Your task to perform on an android device: check google app version Image 0: 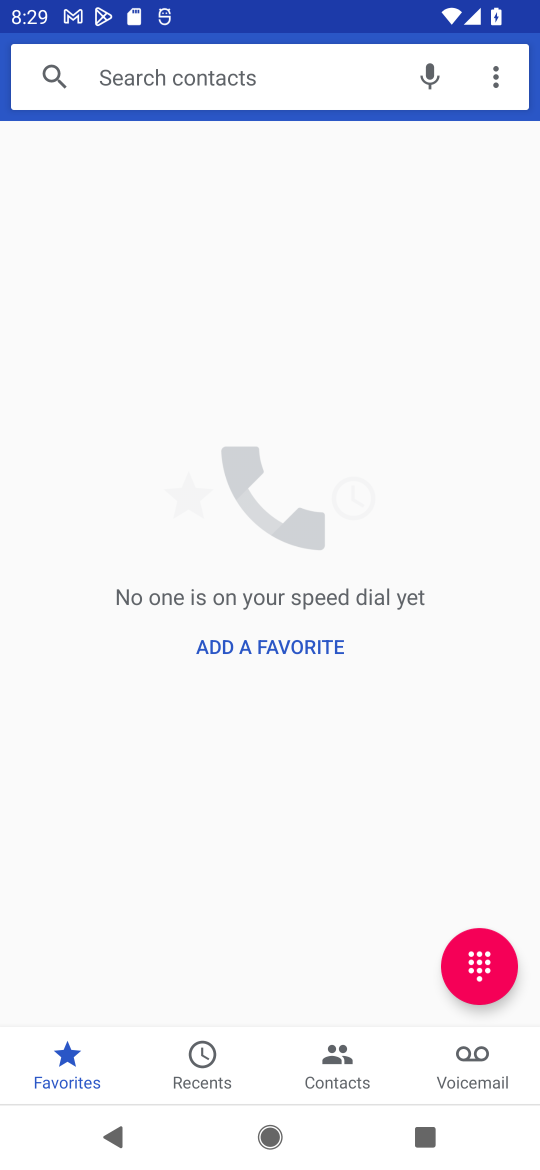
Step 0: press home button
Your task to perform on an android device: check google app version Image 1: 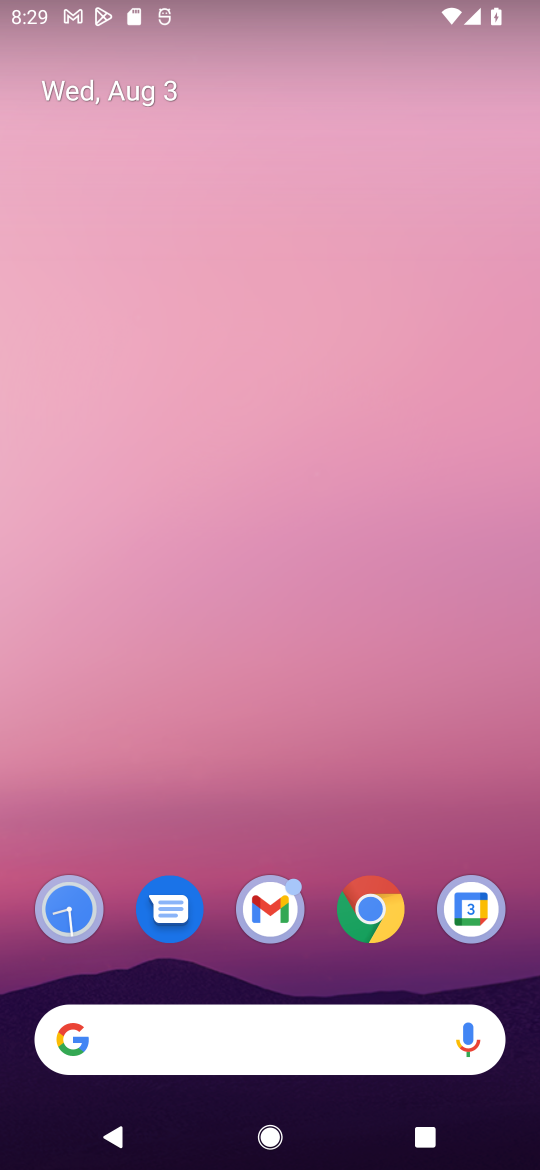
Step 1: drag from (420, 838) to (448, 391)
Your task to perform on an android device: check google app version Image 2: 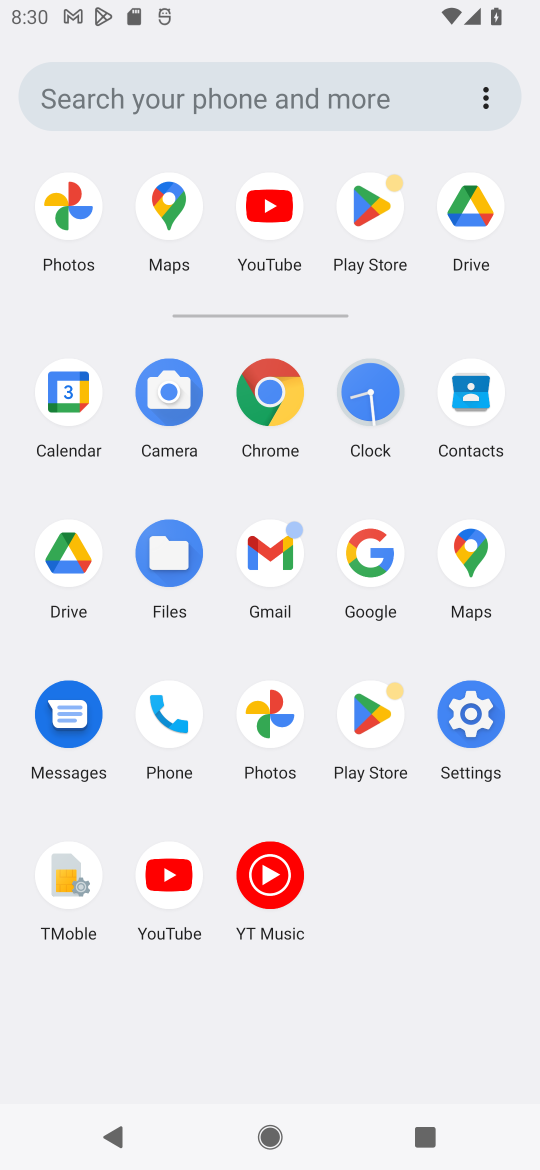
Step 2: click (383, 561)
Your task to perform on an android device: check google app version Image 3: 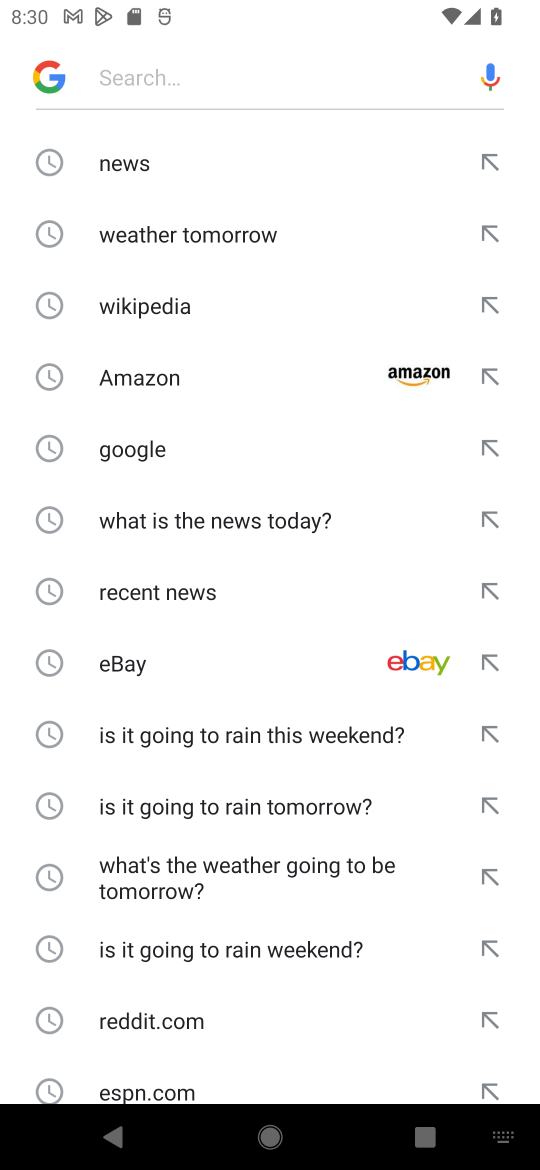
Step 3: press back button
Your task to perform on an android device: check google app version Image 4: 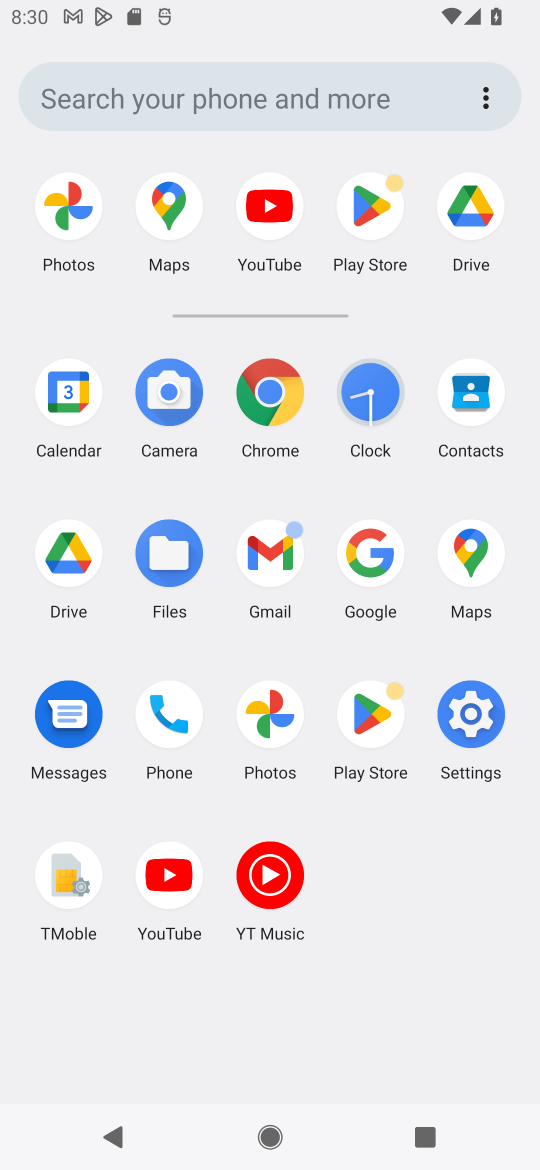
Step 4: click (381, 553)
Your task to perform on an android device: check google app version Image 5: 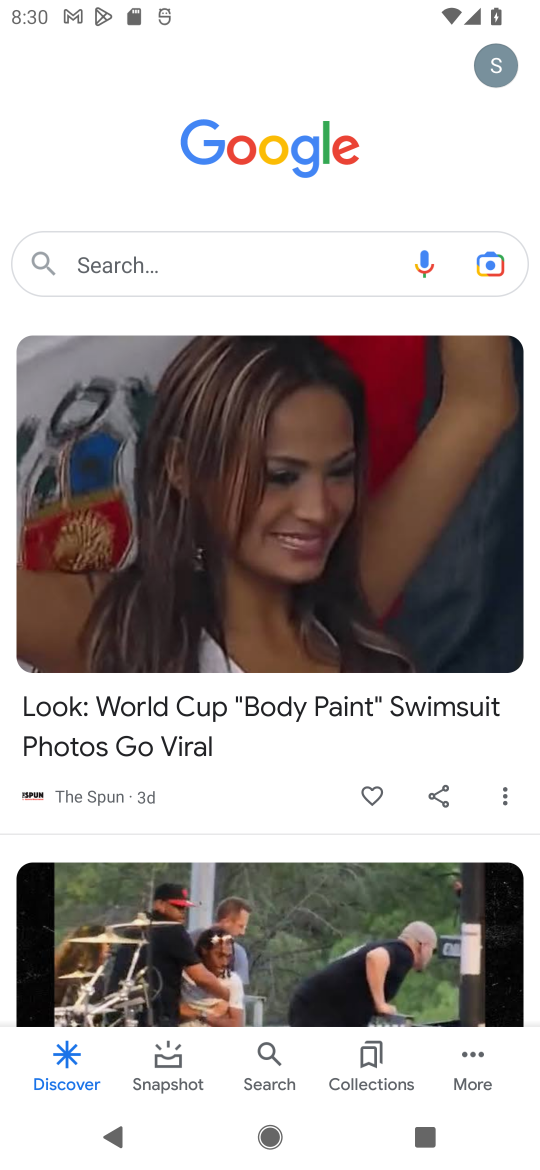
Step 5: click (464, 1068)
Your task to perform on an android device: check google app version Image 6: 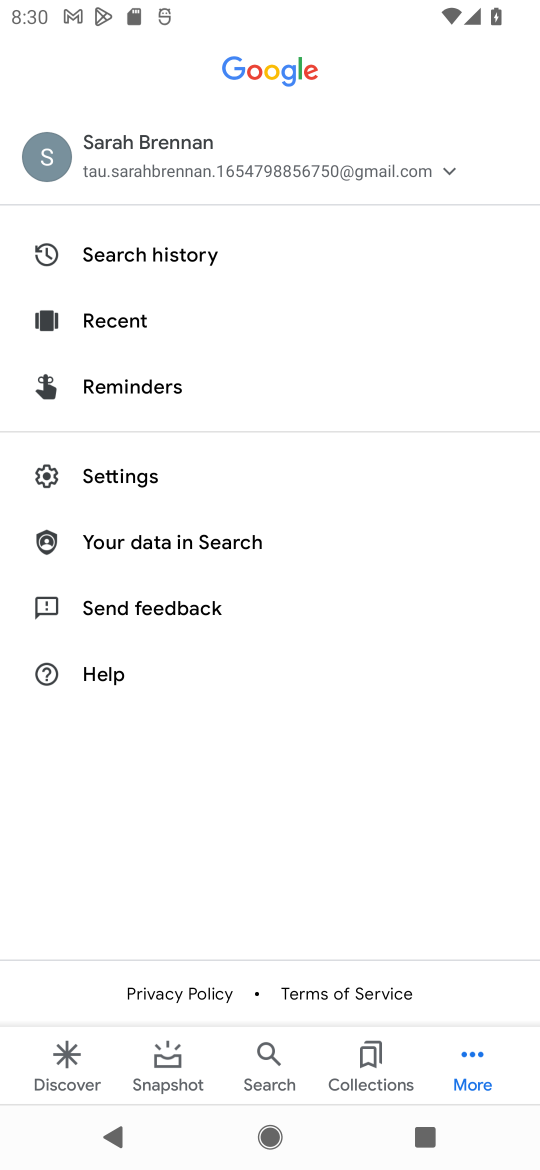
Step 6: click (163, 469)
Your task to perform on an android device: check google app version Image 7: 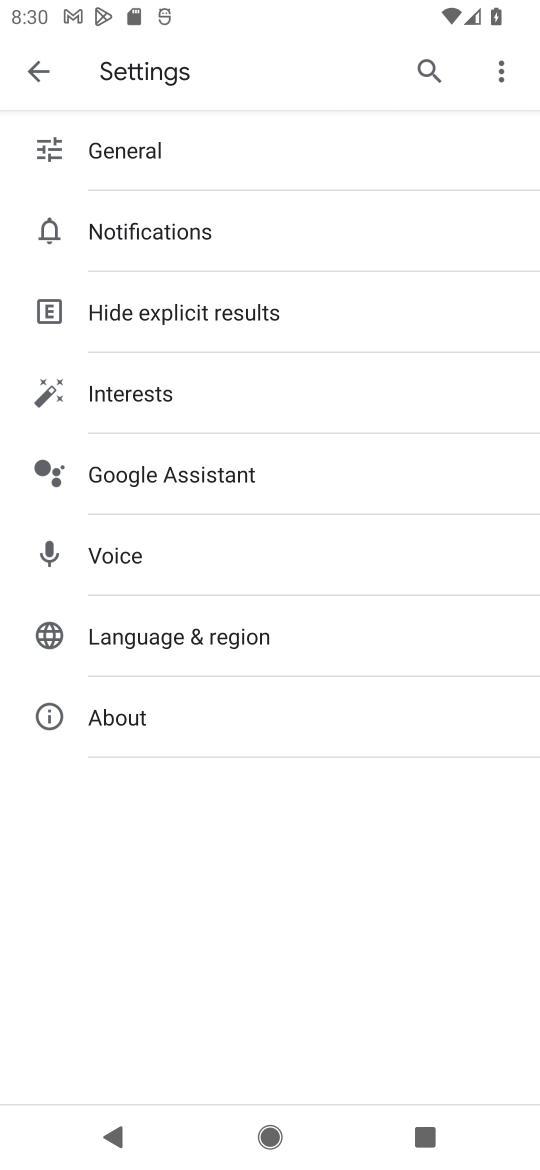
Step 7: click (132, 720)
Your task to perform on an android device: check google app version Image 8: 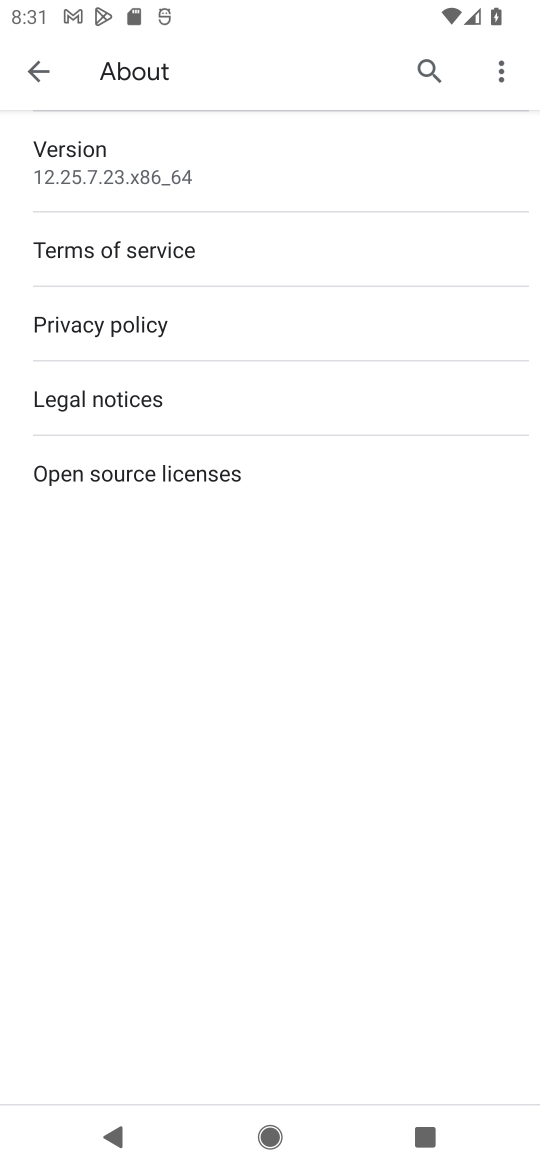
Step 8: task complete